Your task to perform on an android device: turn on the 24-hour format for clock Image 0: 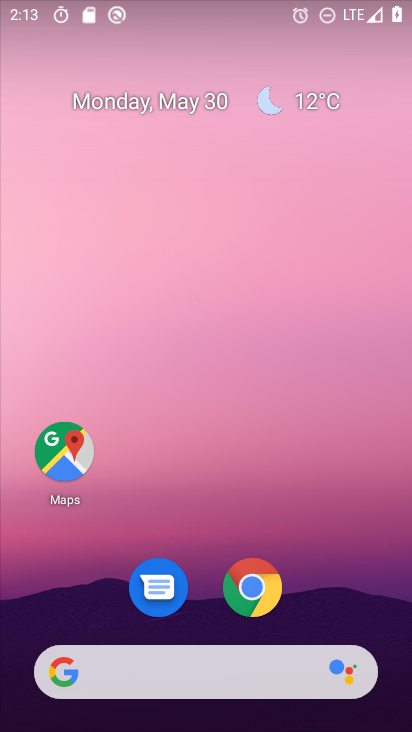
Step 0: drag from (322, 527) to (302, 120)
Your task to perform on an android device: turn on the 24-hour format for clock Image 1: 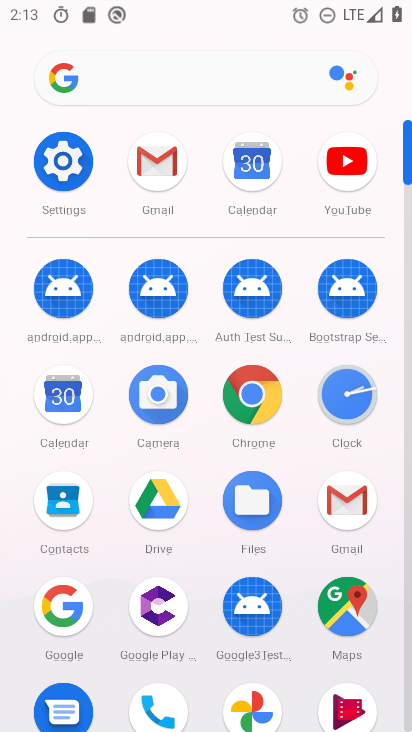
Step 1: click (343, 391)
Your task to perform on an android device: turn on the 24-hour format for clock Image 2: 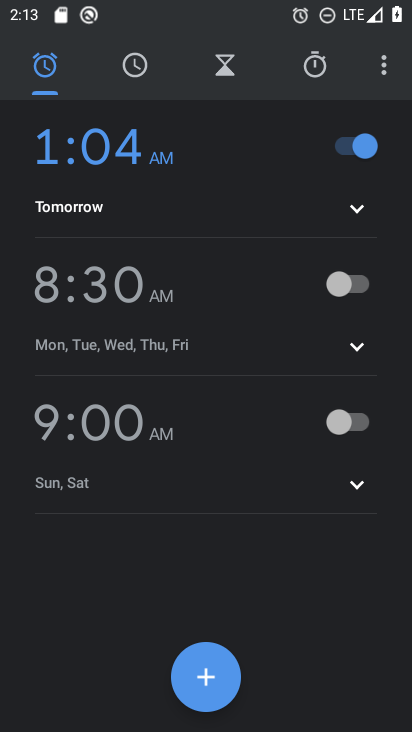
Step 2: click (386, 62)
Your task to perform on an android device: turn on the 24-hour format for clock Image 3: 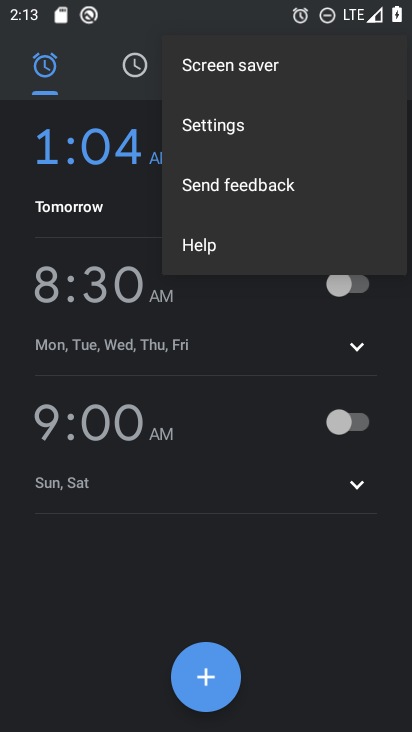
Step 3: click (210, 141)
Your task to perform on an android device: turn on the 24-hour format for clock Image 4: 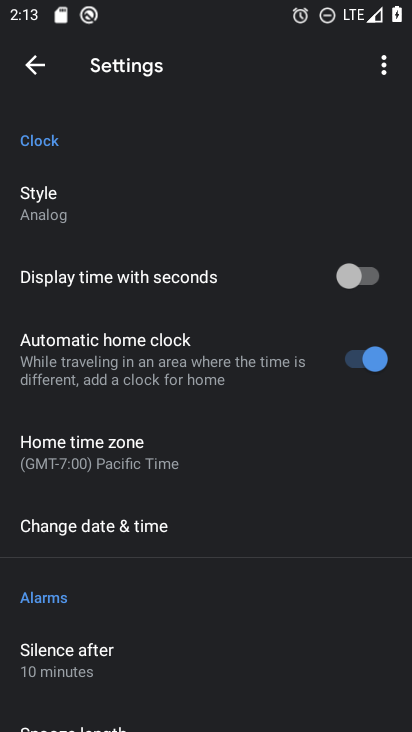
Step 4: click (161, 543)
Your task to perform on an android device: turn on the 24-hour format for clock Image 5: 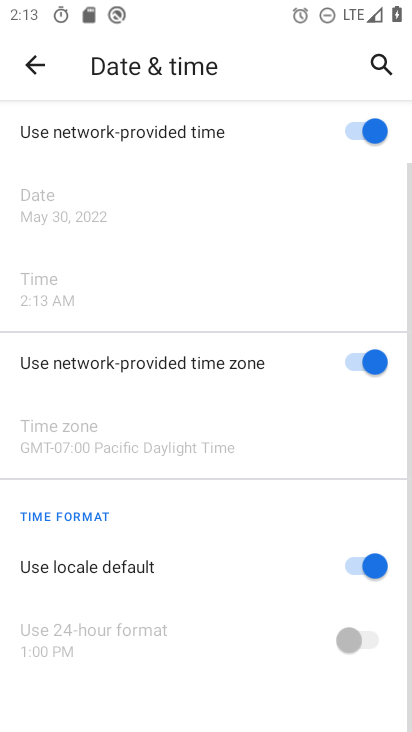
Step 5: drag from (242, 370) to (263, 79)
Your task to perform on an android device: turn on the 24-hour format for clock Image 6: 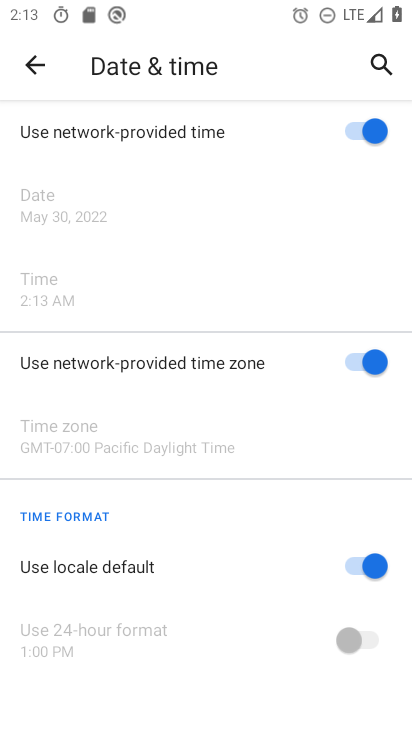
Step 6: click (363, 582)
Your task to perform on an android device: turn on the 24-hour format for clock Image 7: 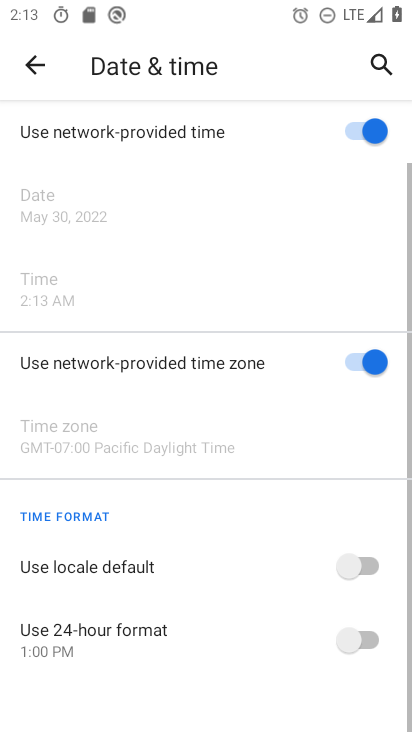
Step 7: click (355, 640)
Your task to perform on an android device: turn on the 24-hour format for clock Image 8: 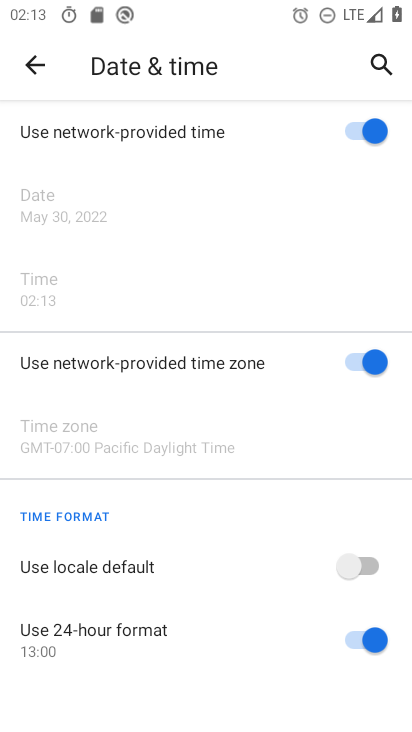
Step 8: task complete